Your task to perform on an android device: snooze an email in the gmail app Image 0: 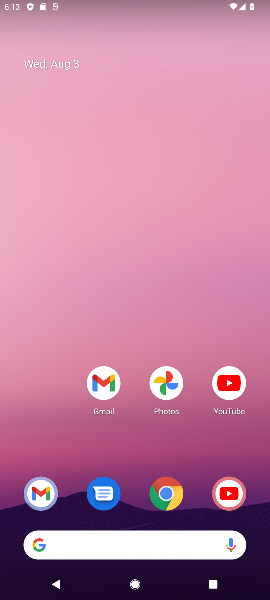
Step 0: drag from (140, 514) to (147, 162)
Your task to perform on an android device: snooze an email in the gmail app Image 1: 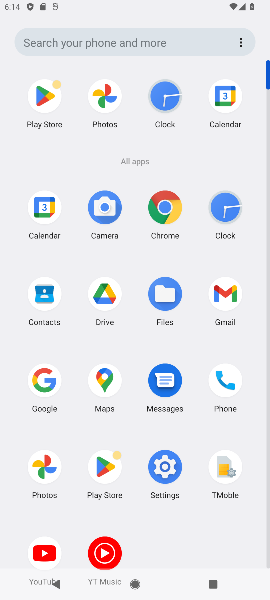
Step 1: click (231, 299)
Your task to perform on an android device: snooze an email in the gmail app Image 2: 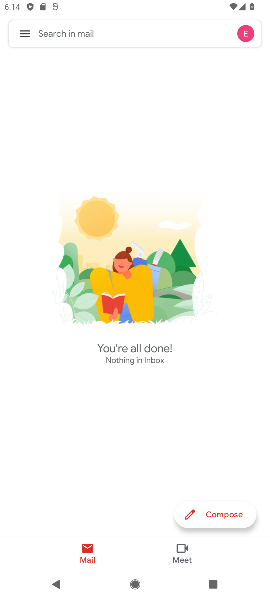
Step 2: task complete